Your task to perform on an android device: turn off translation in the chrome app Image 0: 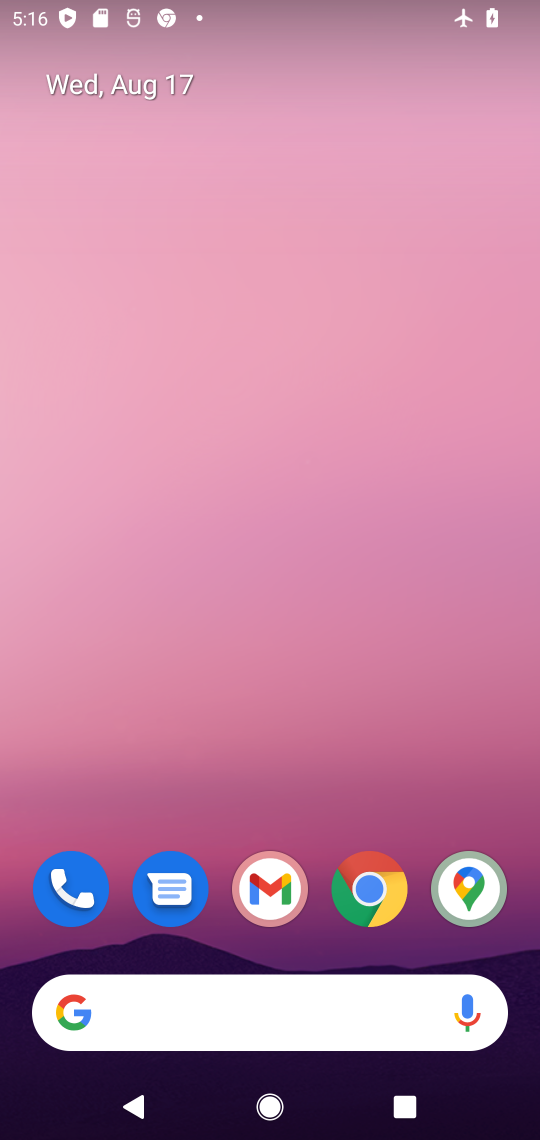
Step 0: click (372, 891)
Your task to perform on an android device: turn off translation in the chrome app Image 1: 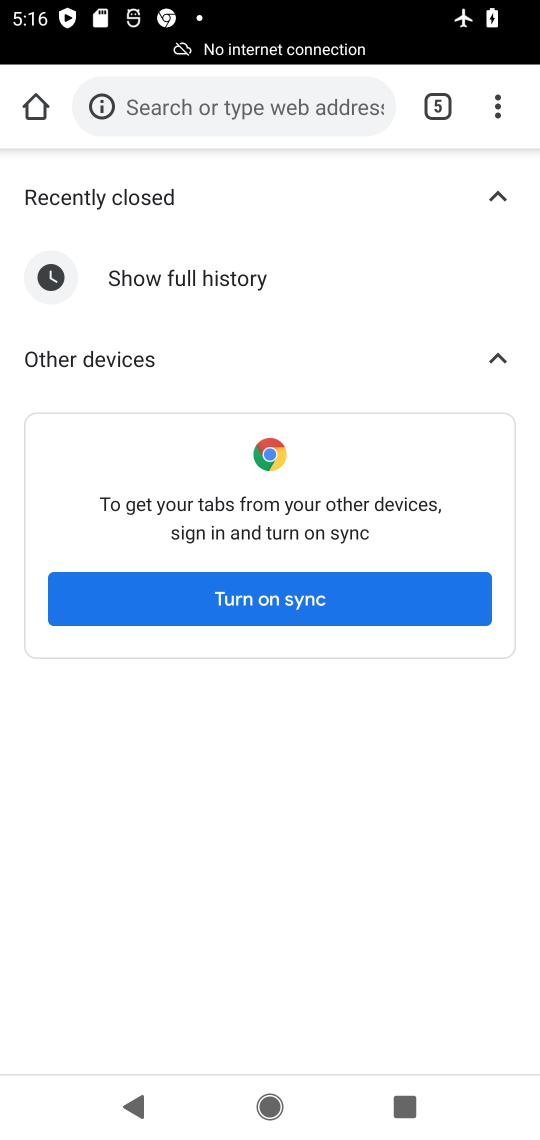
Step 1: click (493, 102)
Your task to perform on an android device: turn off translation in the chrome app Image 2: 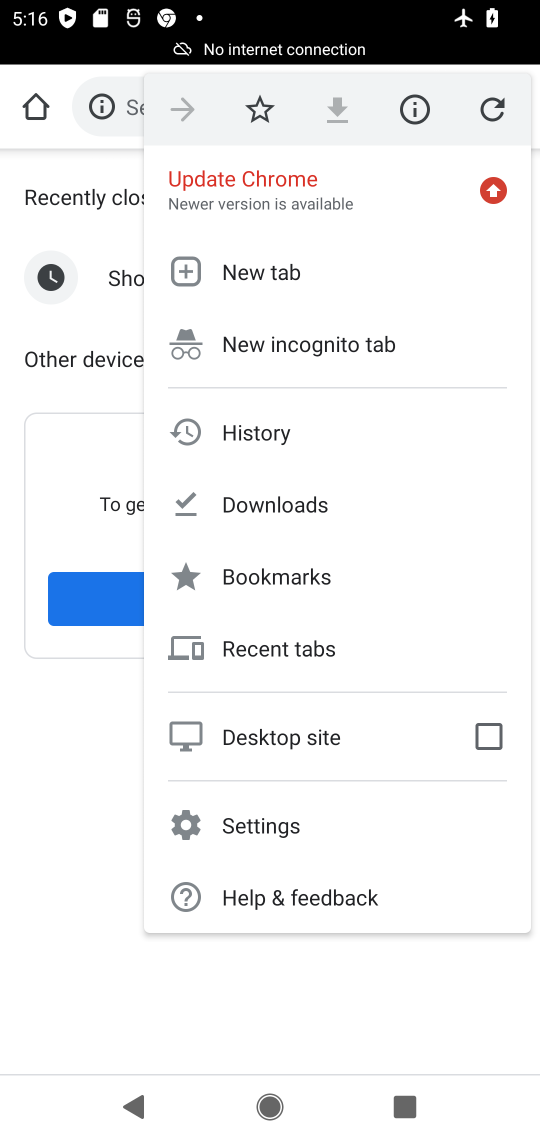
Step 2: click (261, 802)
Your task to perform on an android device: turn off translation in the chrome app Image 3: 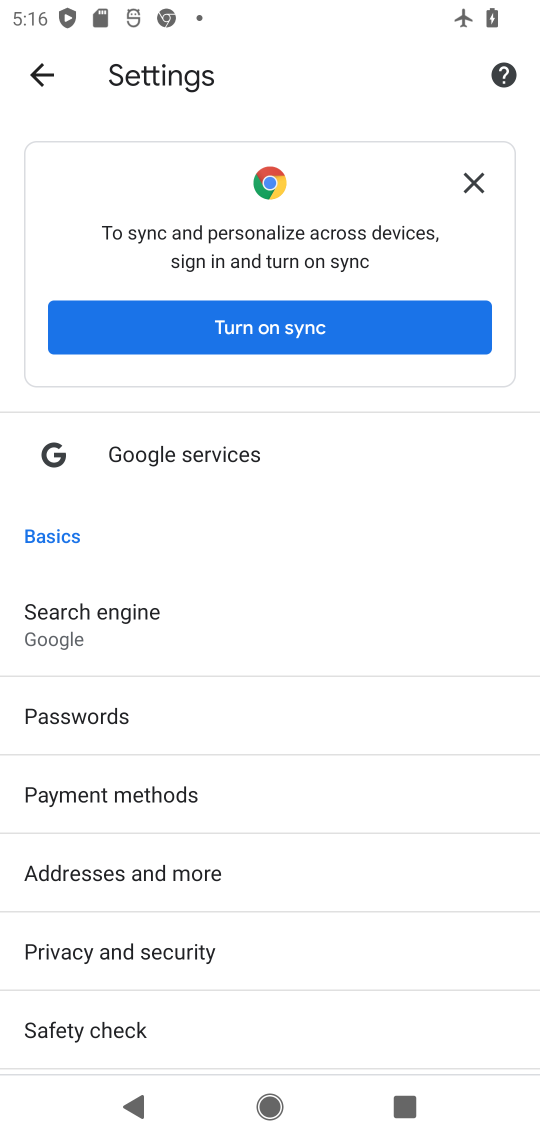
Step 3: drag from (275, 990) to (265, 473)
Your task to perform on an android device: turn off translation in the chrome app Image 4: 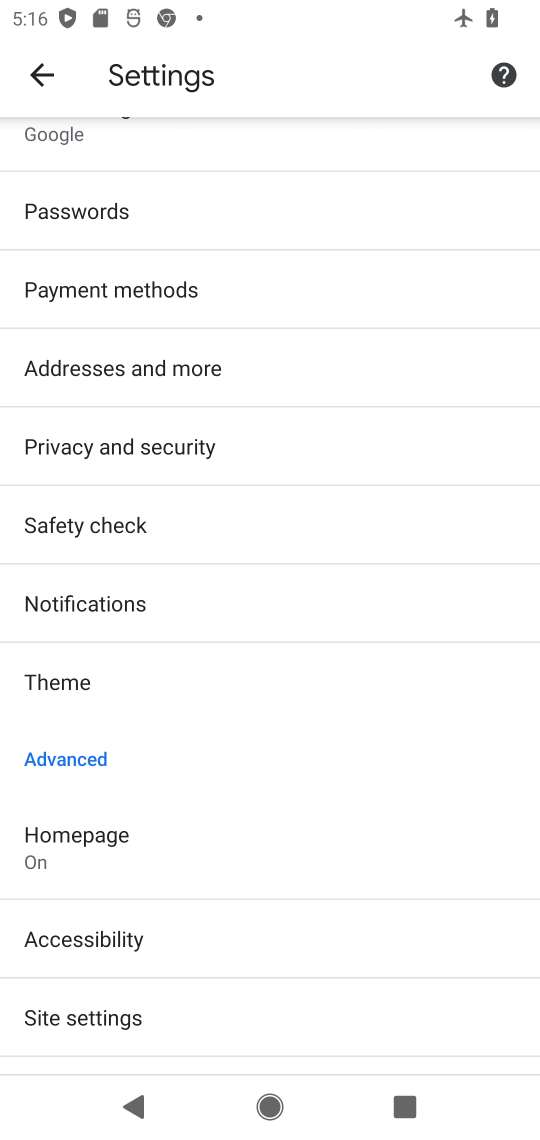
Step 4: drag from (258, 913) to (303, 320)
Your task to perform on an android device: turn off translation in the chrome app Image 5: 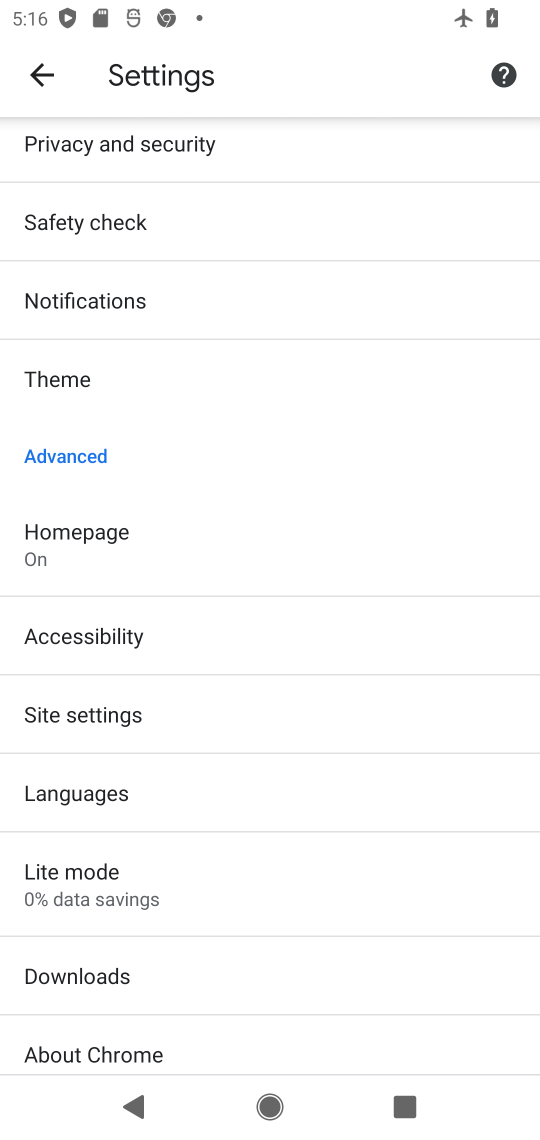
Step 5: click (86, 792)
Your task to perform on an android device: turn off translation in the chrome app Image 6: 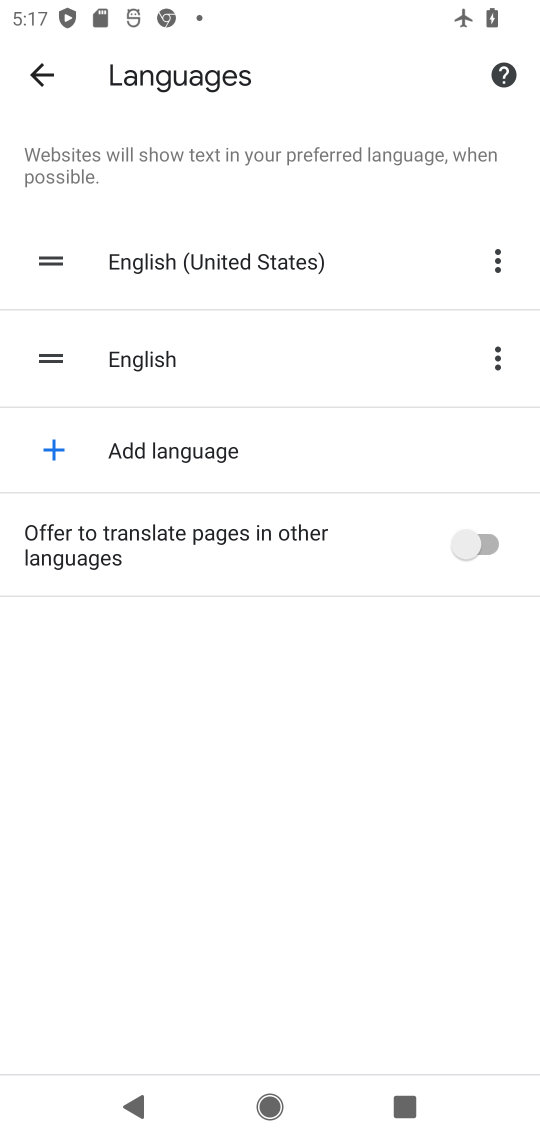
Step 6: task complete